Your task to perform on an android device: Open Wikipedia Image 0: 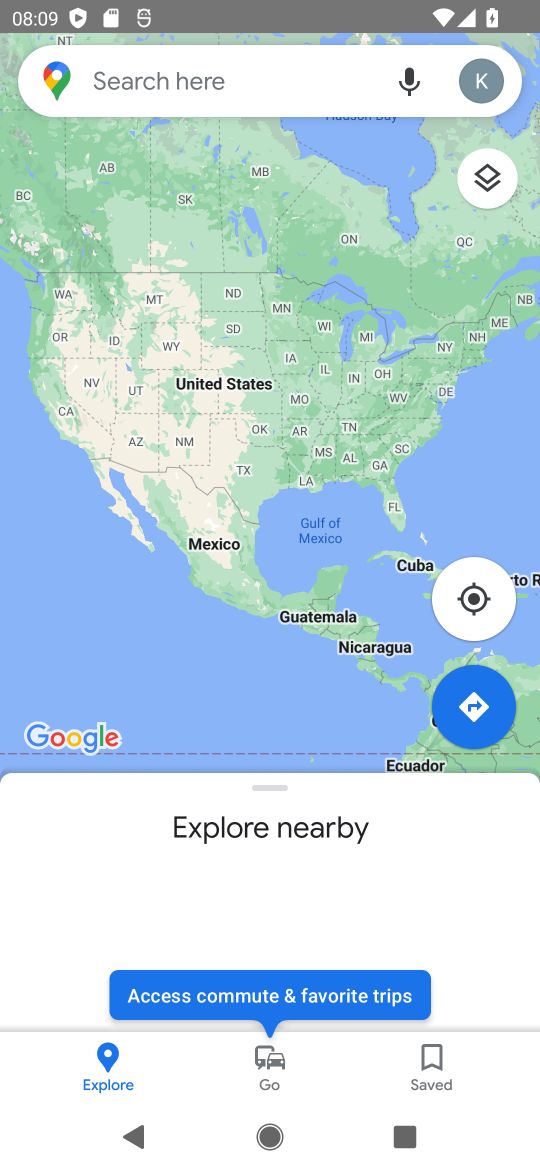
Step 0: press home button
Your task to perform on an android device: Open Wikipedia Image 1: 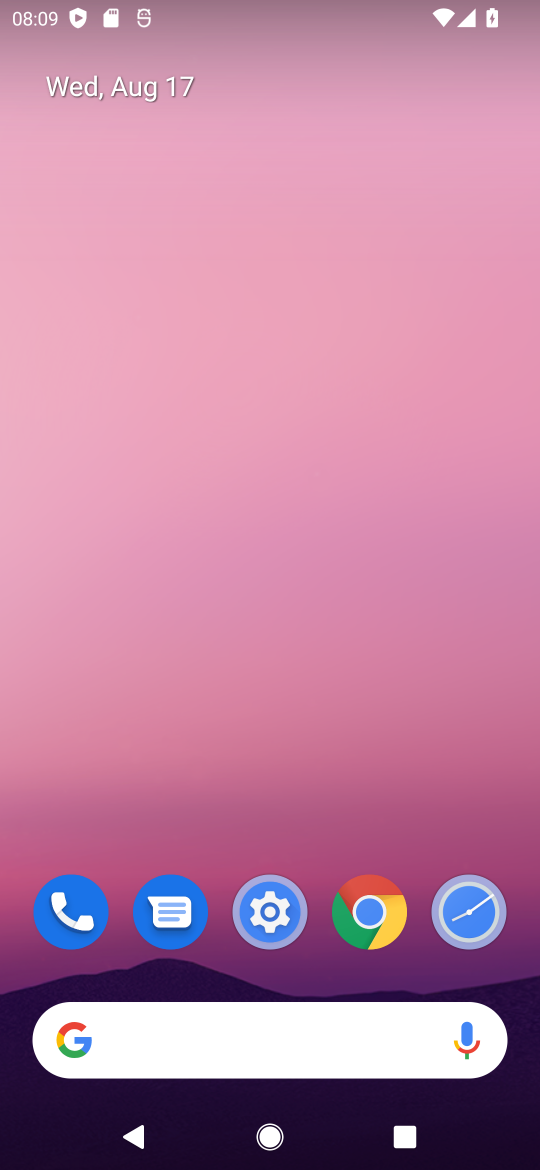
Step 1: click (370, 928)
Your task to perform on an android device: Open Wikipedia Image 2: 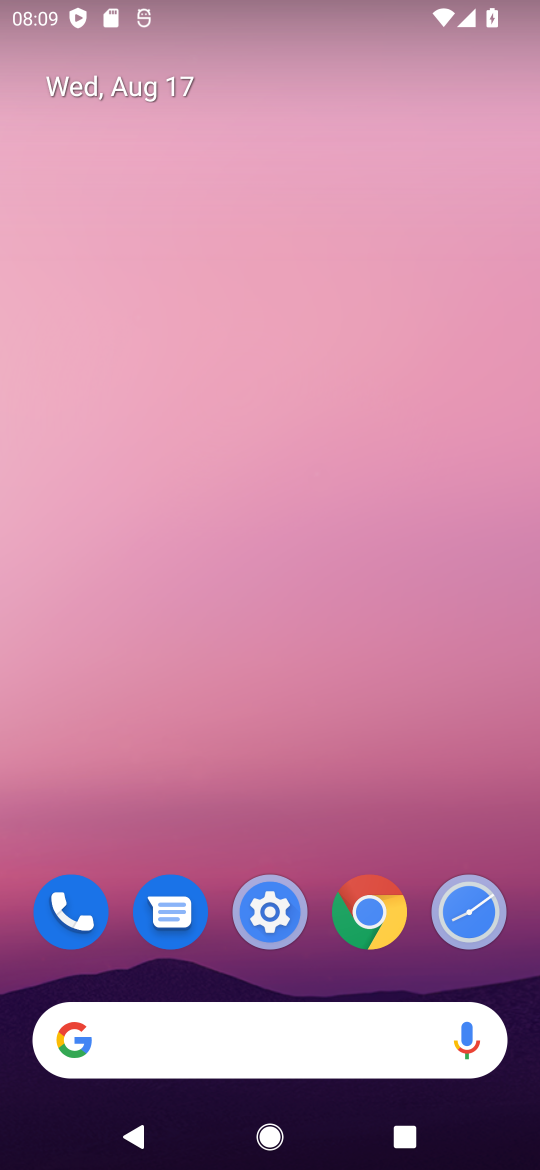
Step 2: click (352, 919)
Your task to perform on an android device: Open Wikipedia Image 3: 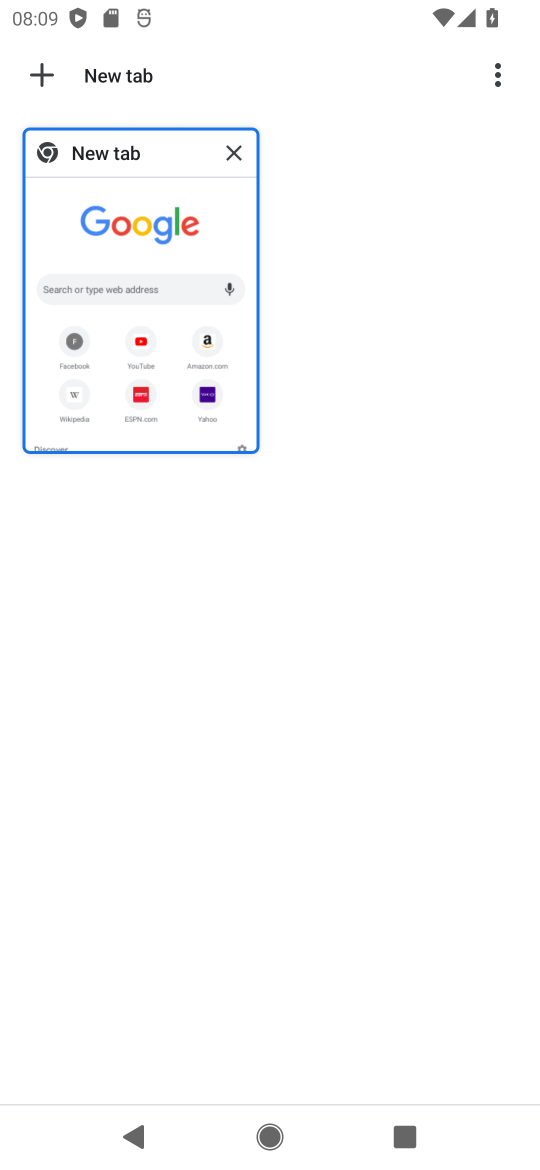
Step 3: click (27, 65)
Your task to perform on an android device: Open Wikipedia Image 4: 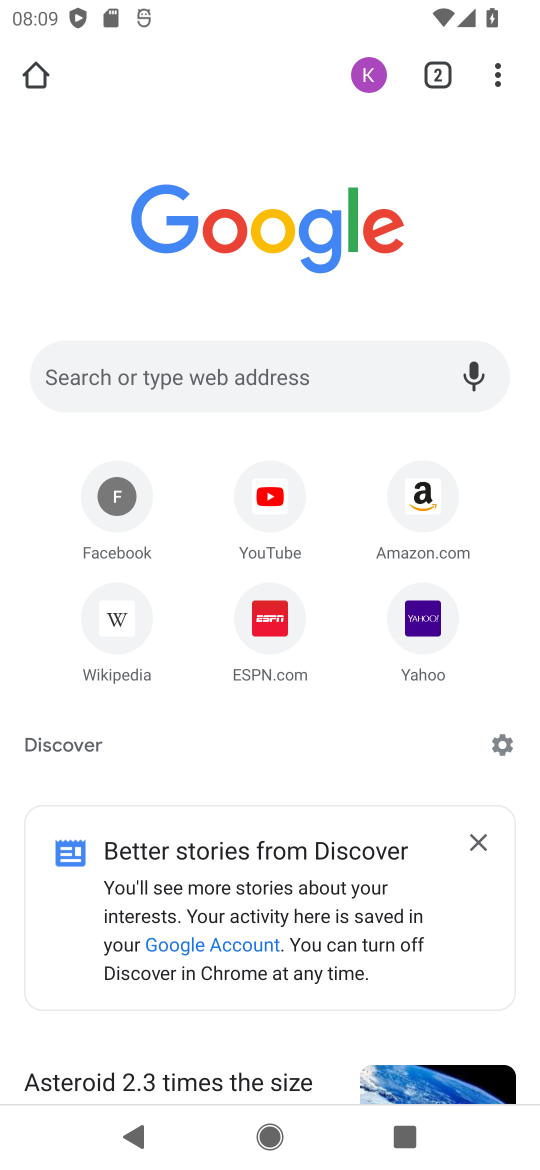
Step 4: click (123, 593)
Your task to perform on an android device: Open Wikipedia Image 5: 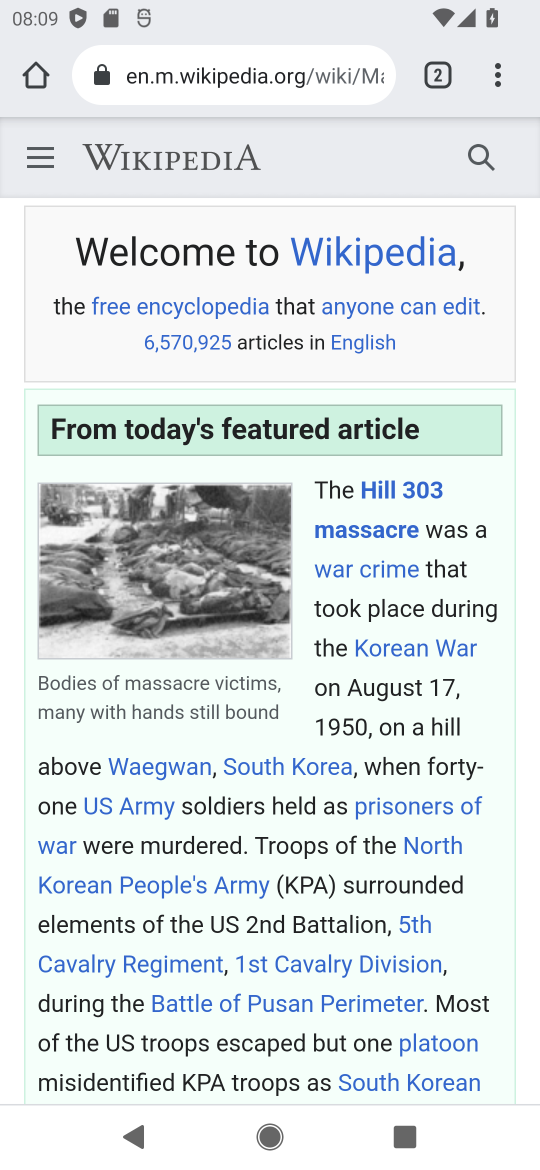
Step 5: task complete